Your task to perform on an android device: Open Chrome and go to the settings page Image 0: 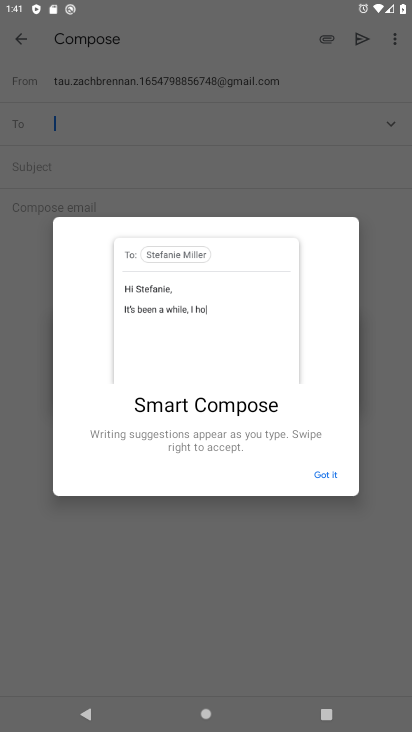
Step 0: press home button
Your task to perform on an android device: Open Chrome and go to the settings page Image 1: 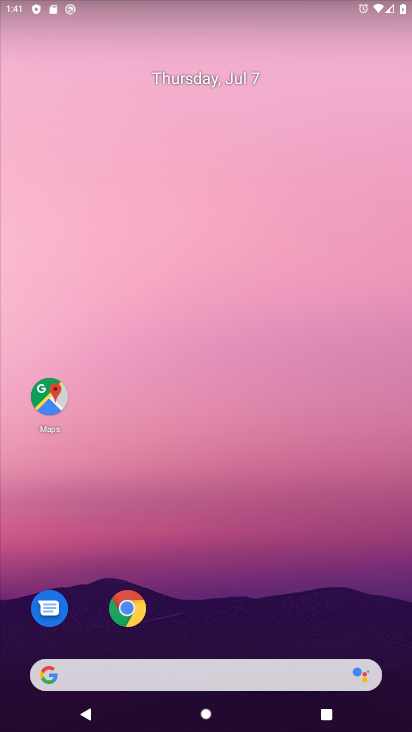
Step 1: click (134, 617)
Your task to perform on an android device: Open Chrome and go to the settings page Image 2: 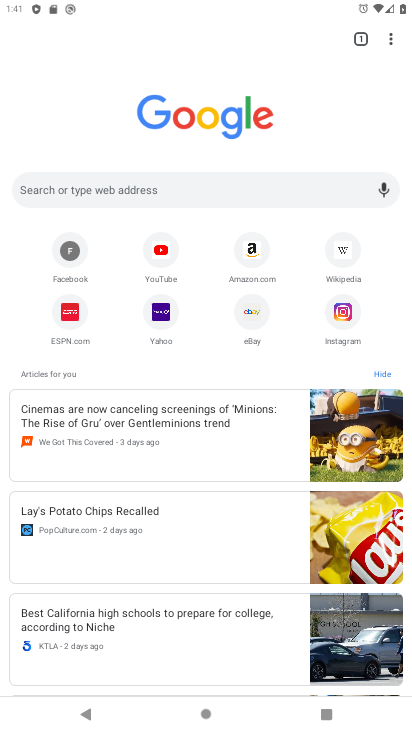
Step 2: click (392, 41)
Your task to perform on an android device: Open Chrome and go to the settings page Image 3: 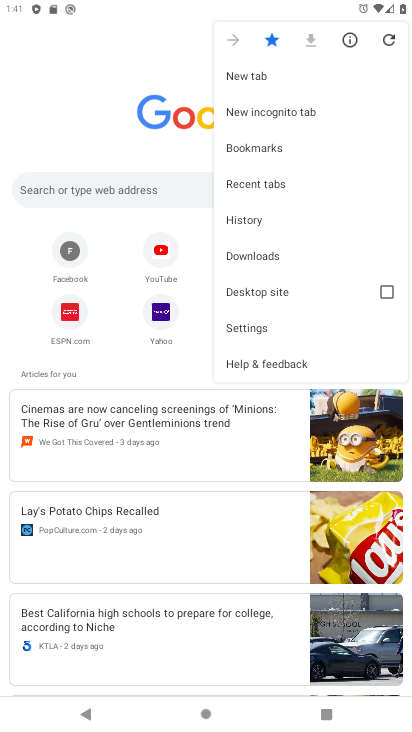
Step 3: click (246, 326)
Your task to perform on an android device: Open Chrome and go to the settings page Image 4: 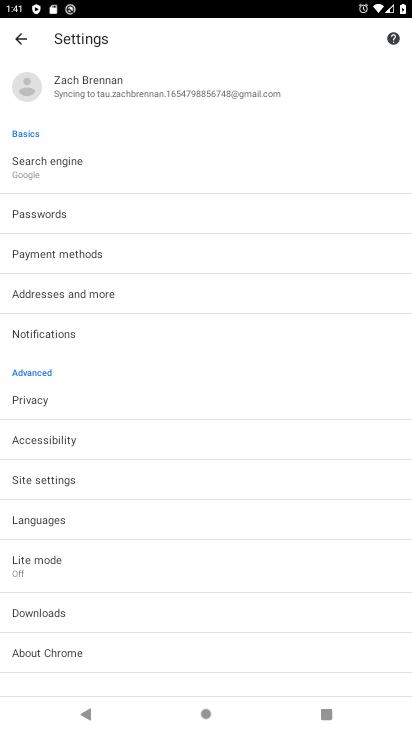
Step 4: task complete